Your task to perform on an android device: open a new tab in the chrome app Image 0: 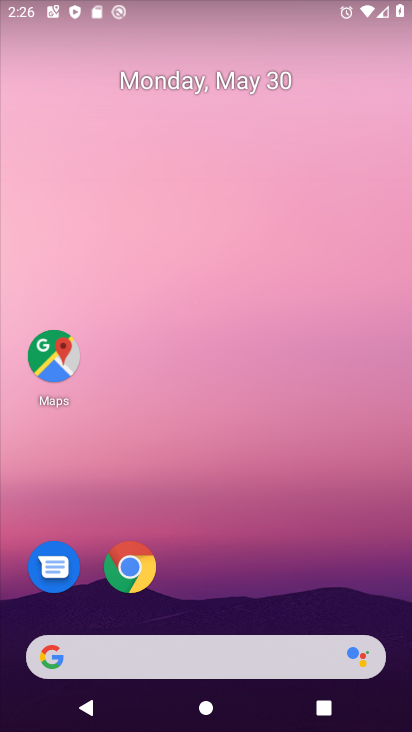
Step 0: click (141, 574)
Your task to perform on an android device: open a new tab in the chrome app Image 1: 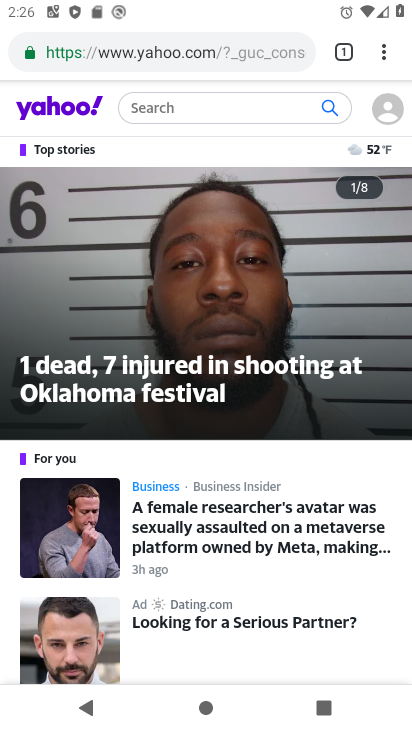
Step 1: click (378, 45)
Your task to perform on an android device: open a new tab in the chrome app Image 2: 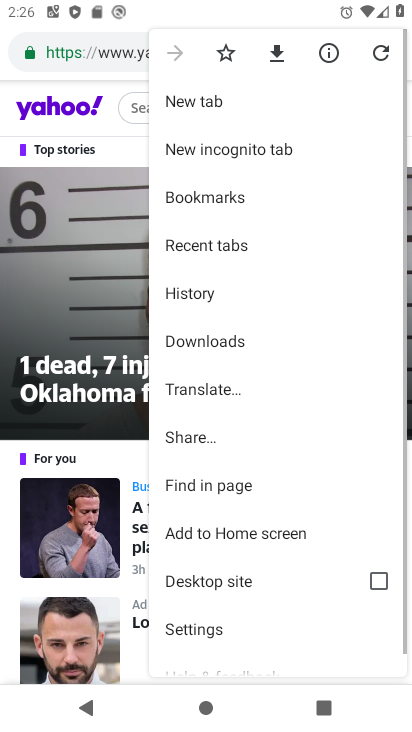
Step 2: click (224, 111)
Your task to perform on an android device: open a new tab in the chrome app Image 3: 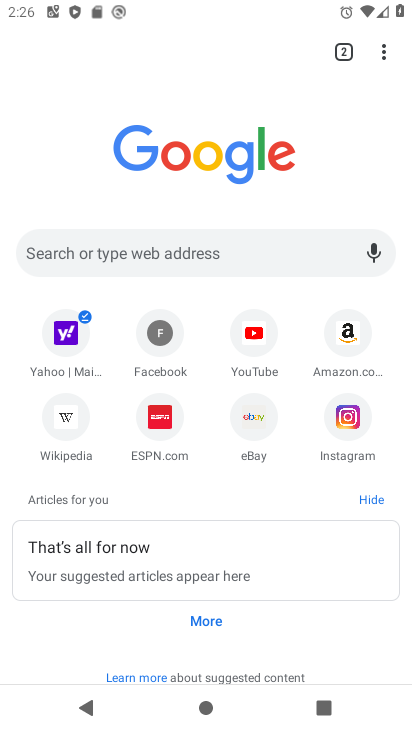
Step 3: task complete